Your task to perform on an android device: set the timer Image 0: 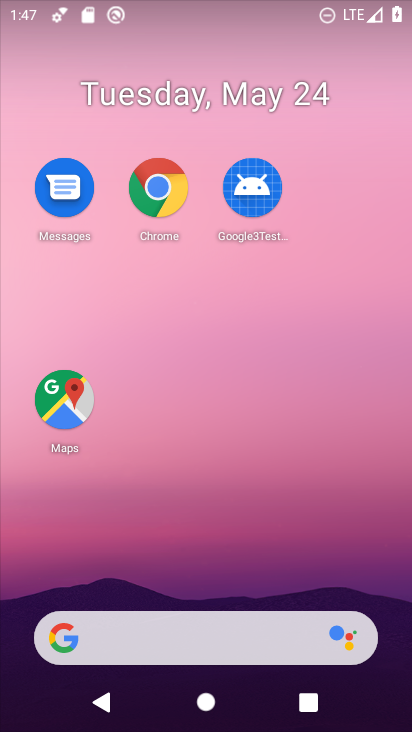
Step 0: drag from (188, 244) to (205, 41)
Your task to perform on an android device: set the timer Image 1: 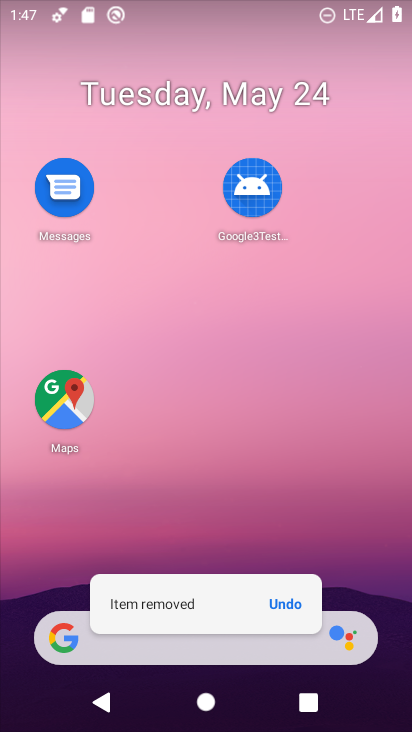
Step 1: click (147, 505)
Your task to perform on an android device: set the timer Image 2: 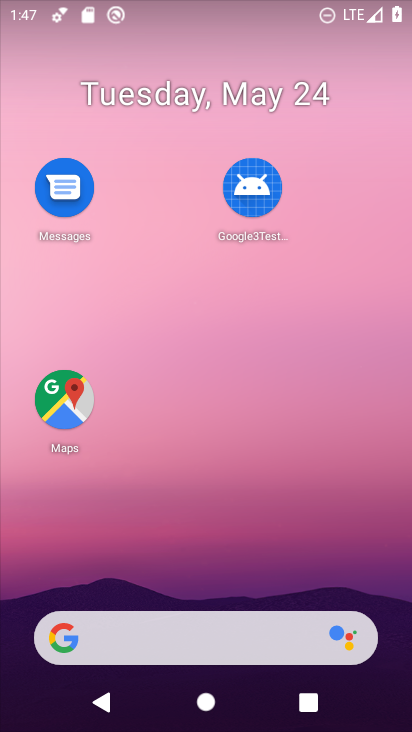
Step 2: drag from (216, 569) to (189, 10)
Your task to perform on an android device: set the timer Image 3: 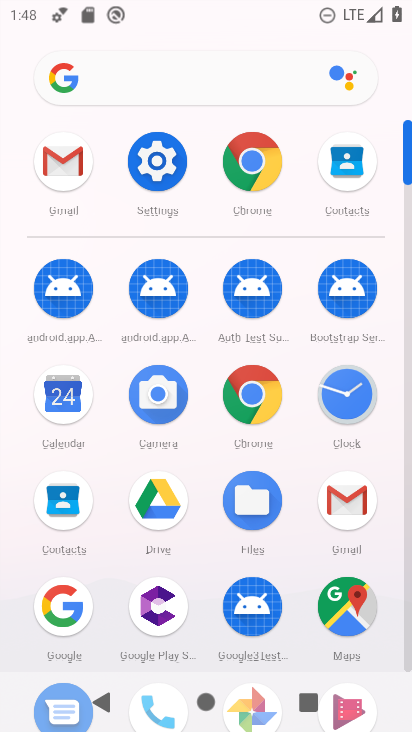
Step 3: click (331, 422)
Your task to perform on an android device: set the timer Image 4: 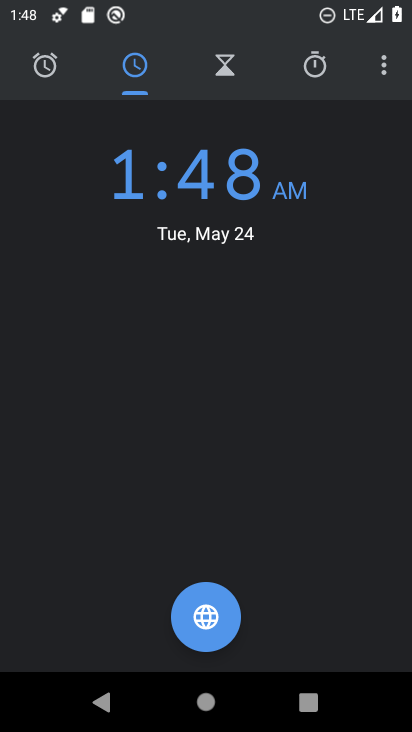
Step 4: click (385, 73)
Your task to perform on an android device: set the timer Image 5: 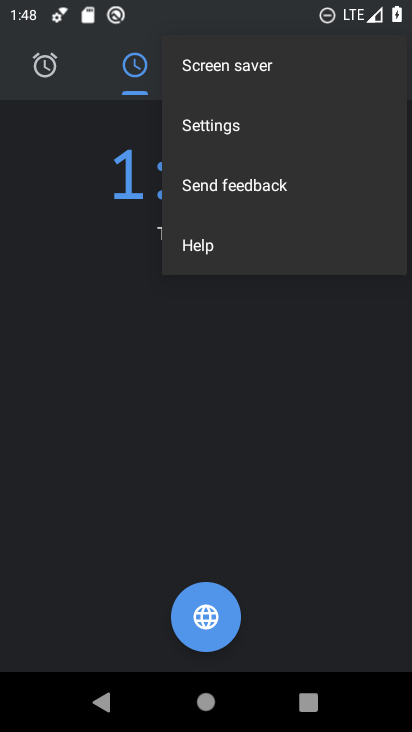
Step 5: click (247, 134)
Your task to perform on an android device: set the timer Image 6: 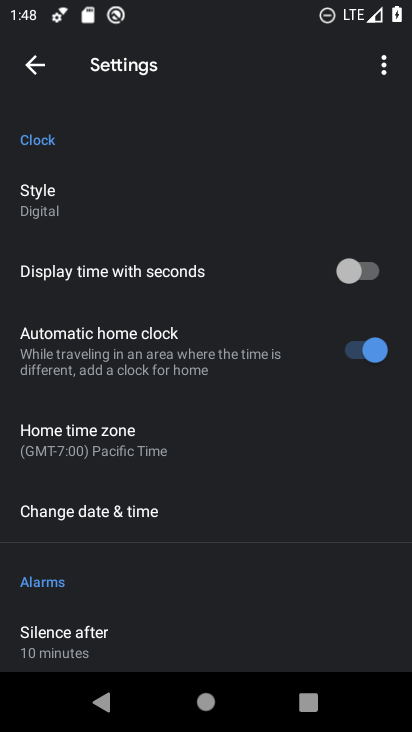
Step 6: drag from (149, 660) to (153, 337)
Your task to perform on an android device: set the timer Image 7: 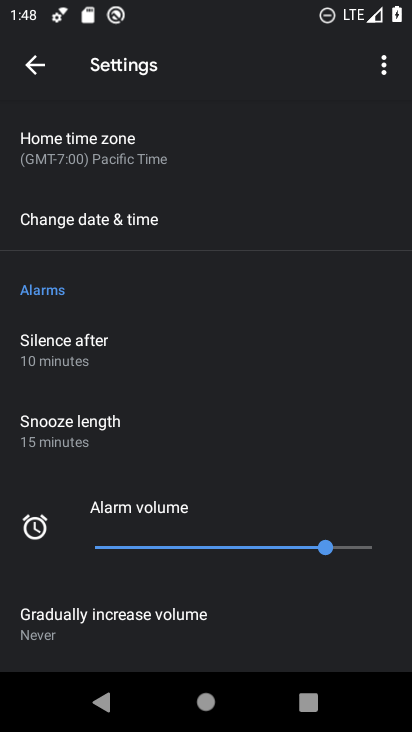
Step 7: click (35, 59)
Your task to perform on an android device: set the timer Image 8: 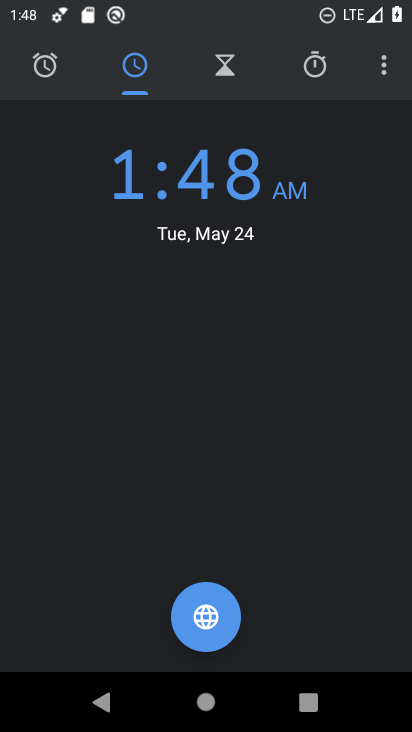
Step 8: click (218, 82)
Your task to perform on an android device: set the timer Image 9: 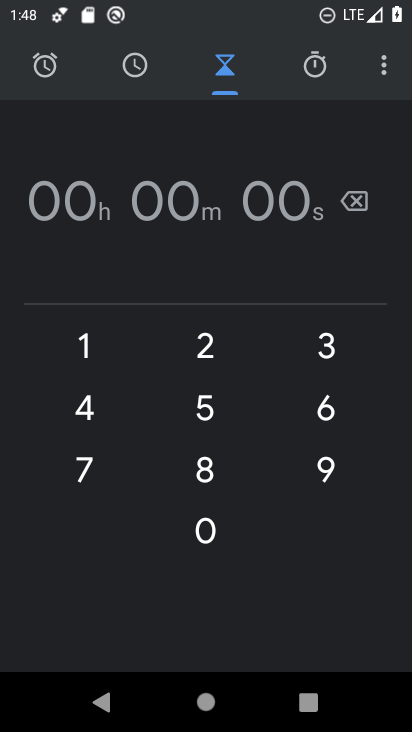
Step 9: click (209, 359)
Your task to perform on an android device: set the timer Image 10: 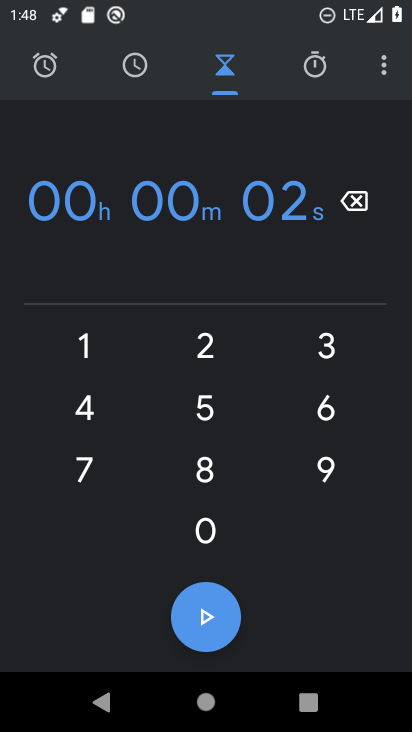
Step 10: click (216, 543)
Your task to perform on an android device: set the timer Image 11: 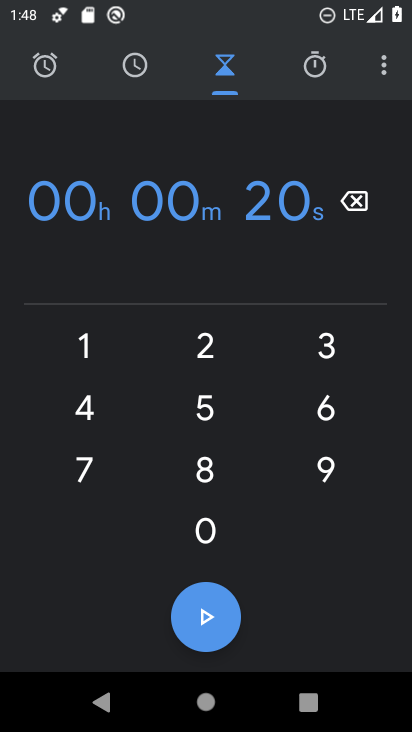
Step 11: click (216, 543)
Your task to perform on an android device: set the timer Image 12: 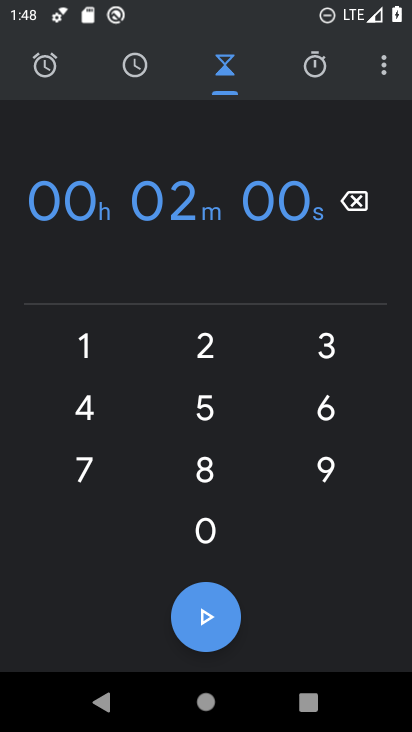
Step 12: click (206, 611)
Your task to perform on an android device: set the timer Image 13: 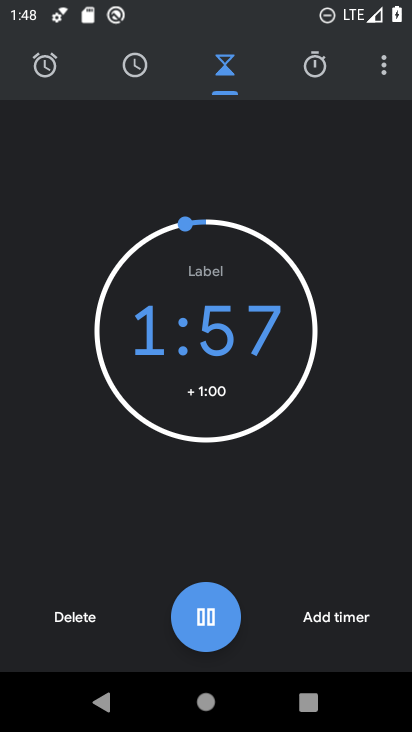
Step 13: task complete